Your task to perform on an android device: Open Google Chrome Image 0: 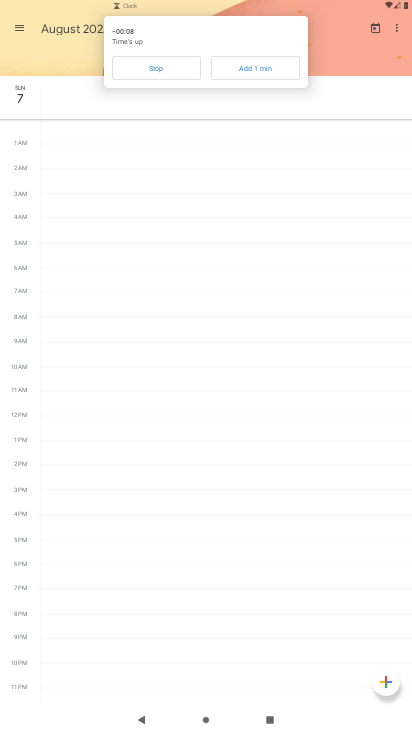
Step 0: press home button
Your task to perform on an android device: Open Google Chrome Image 1: 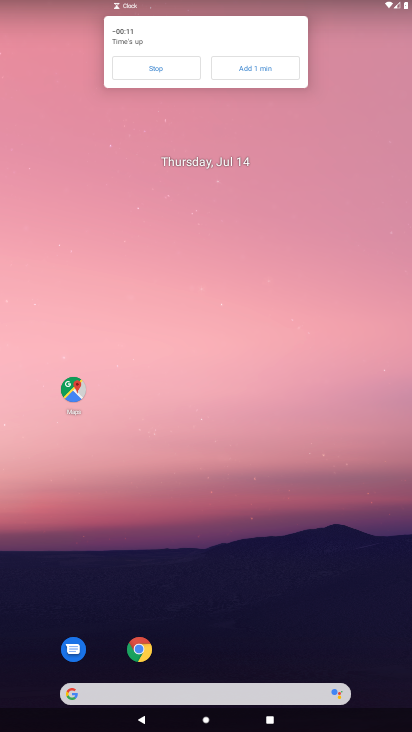
Step 1: click (160, 73)
Your task to perform on an android device: Open Google Chrome Image 2: 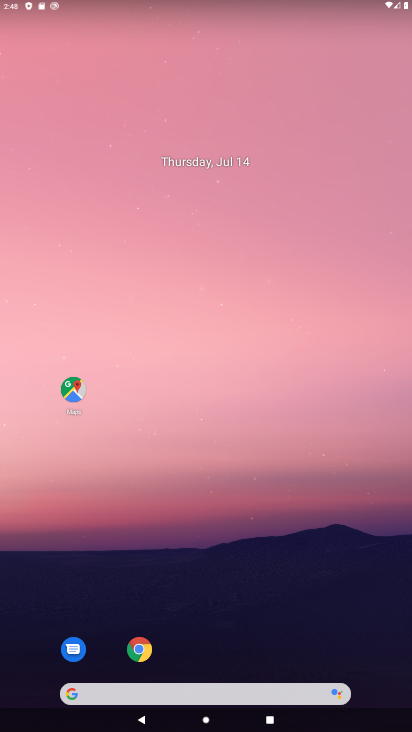
Step 2: click (139, 644)
Your task to perform on an android device: Open Google Chrome Image 3: 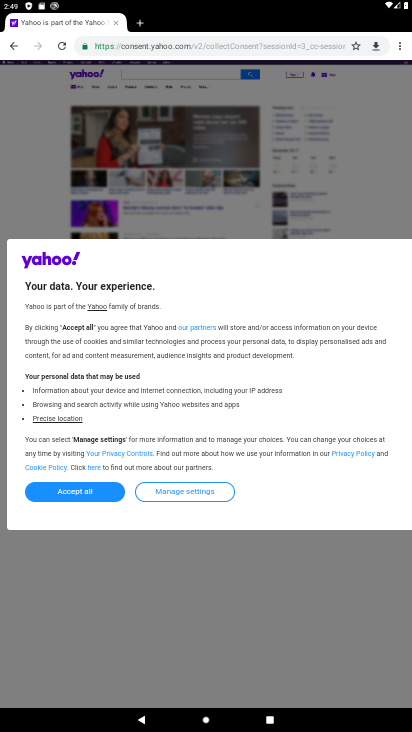
Step 3: task complete